Your task to perform on an android device: change keyboard looks Image 0: 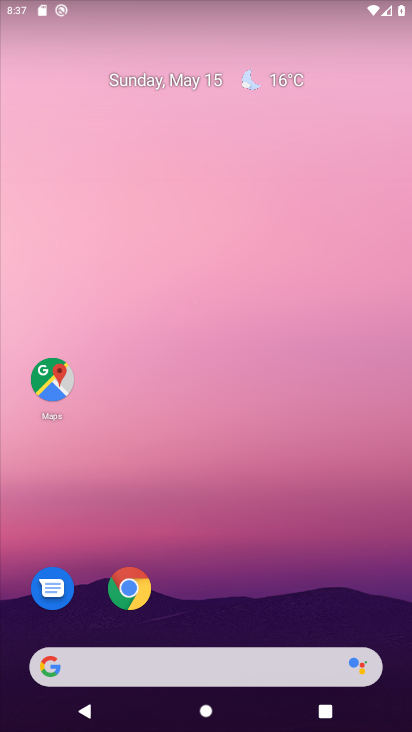
Step 0: drag from (199, 611) to (162, 193)
Your task to perform on an android device: change keyboard looks Image 1: 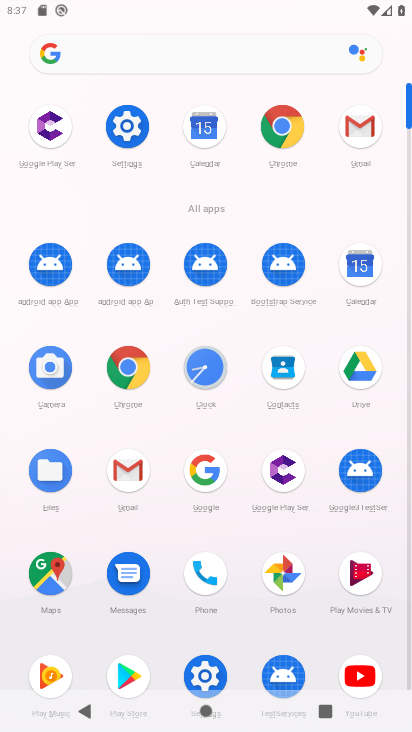
Step 1: click (143, 131)
Your task to perform on an android device: change keyboard looks Image 2: 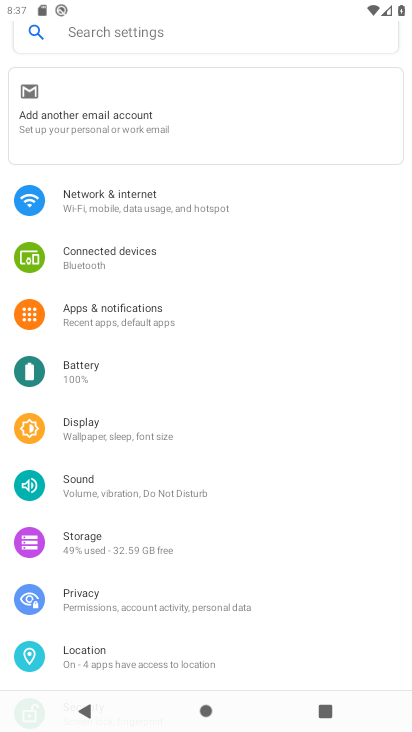
Step 2: drag from (203, 645) to (166, 99)
Your task to perform on an android device: change keyboard looks Image 3: 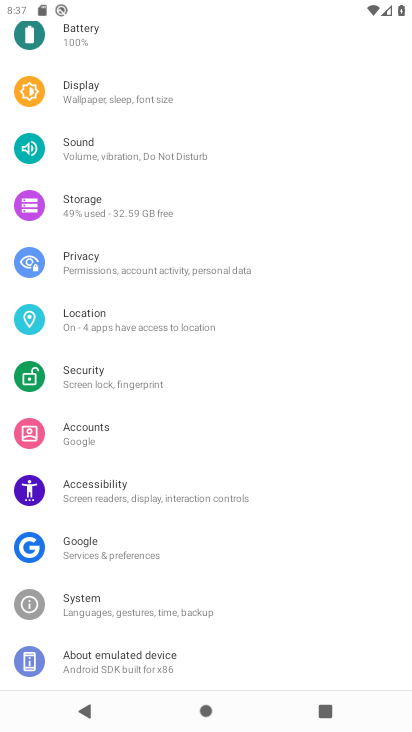
Step 3: click (111, 599)
Your task to perform on an android device: change keyboard looks Image 4: 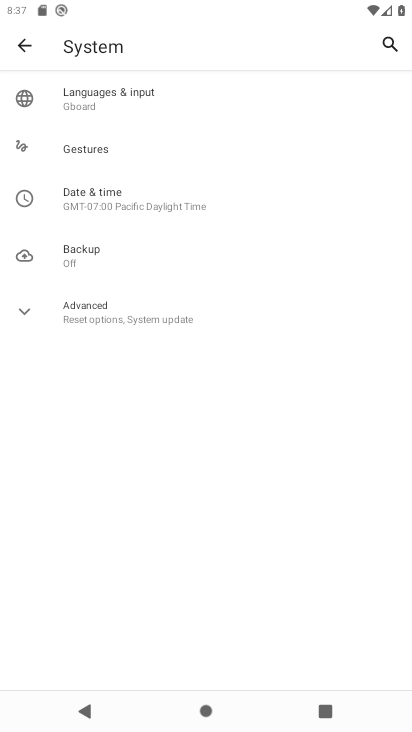
Step 4: click (94, 111)
Your task to perform on an android device: change keyboard looks Image 5: 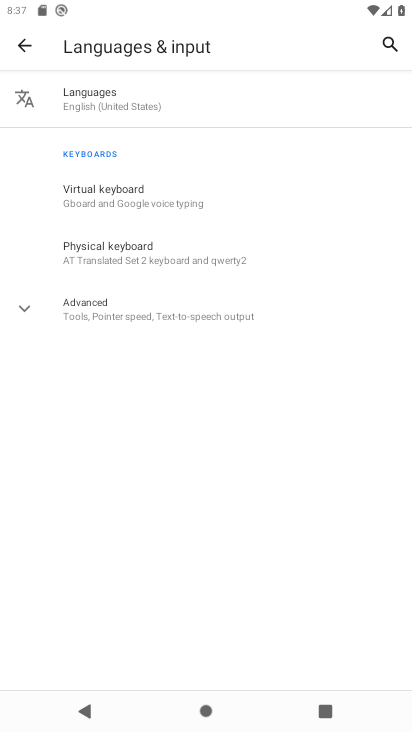
Step 5: click (114, 199)
Your task to perform on an android device: change keyboard looks Image 6: 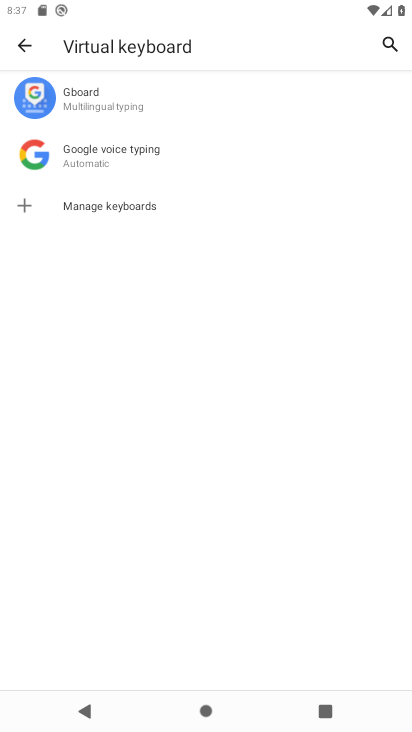
Step 6: click (80, 108)
Your task to perform on an android device: change keyboard looks Image 7: 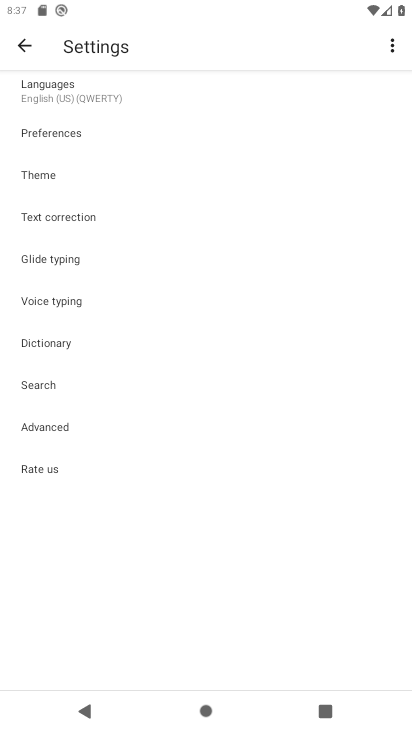
Step 7: click (59, 178)
Your task to perform on an android device: change keyboard looks Image 8: 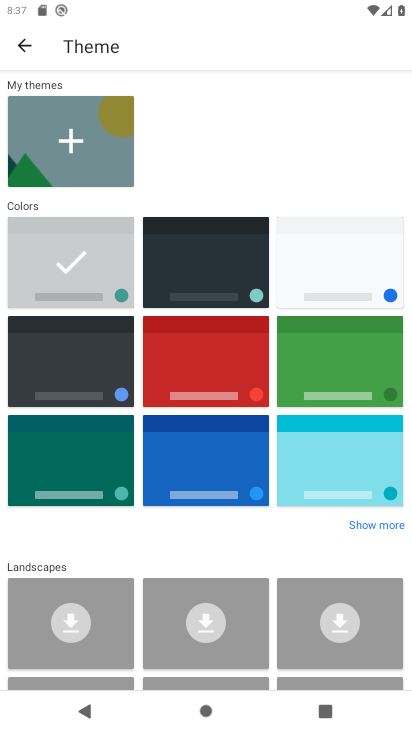
Step 8: click (222, 273)
Your task to perform on an android device: change keyboard looks Image 9: 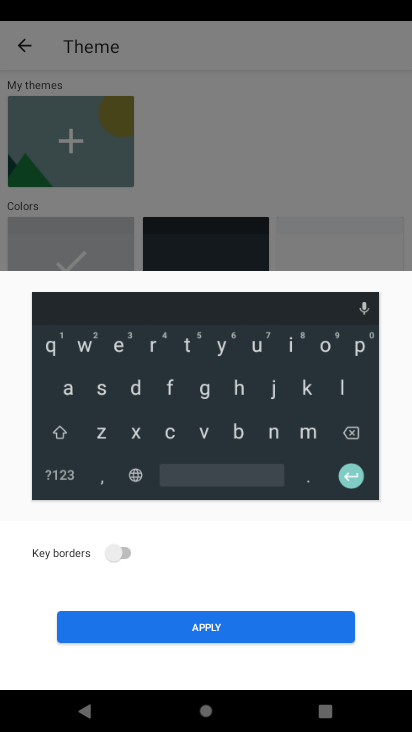
Step 9: task complete